Your task to perform on an android device: change alarm snooze length Image 0: 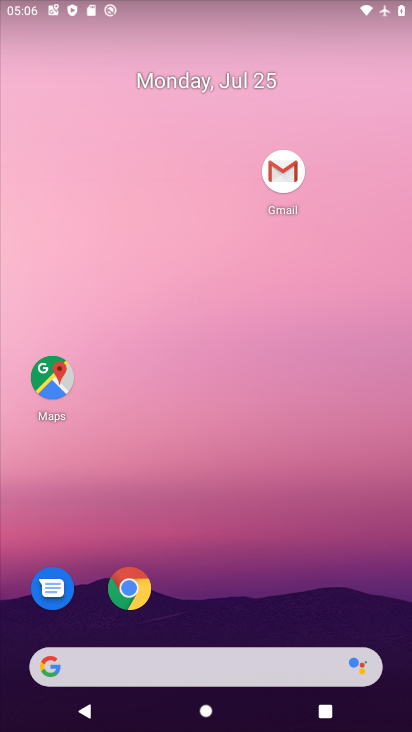
Step 0: drag from (314, 521) to (160, 16)
Your task to perform on an android device: change alarm snooze length Image 1: 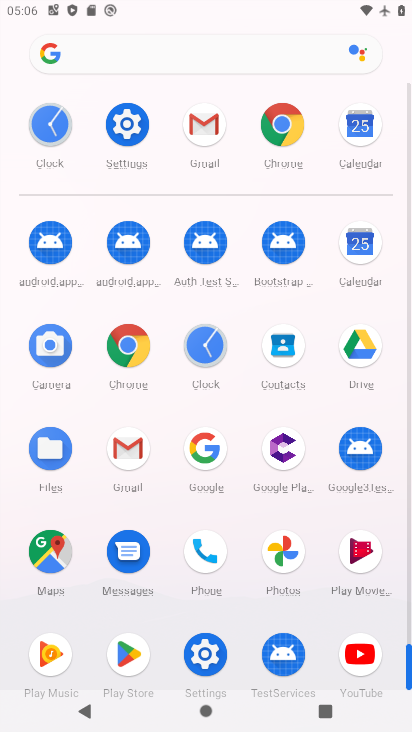
Step 1: click (209, 349)
Your task to perform on an android device: change alarm snooze length Image 2: 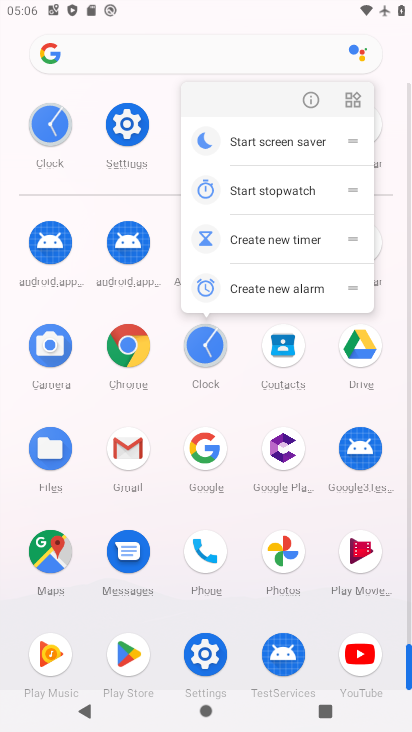
Step 2: click (204, 344)
Your task to perform on an android device: change alarm snooze length Image 3: 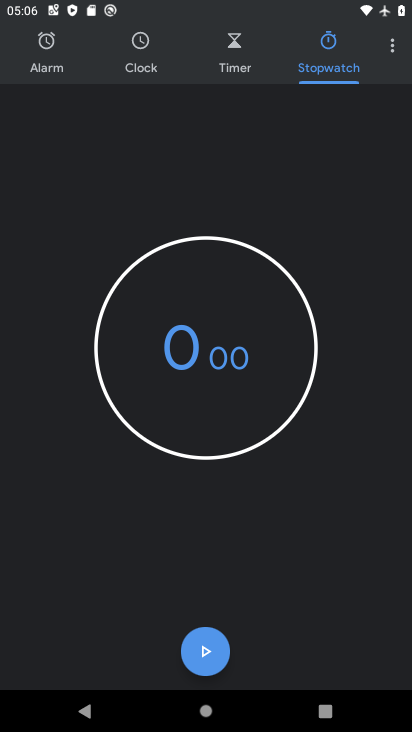
Step 3: click (386, 46)
Your task to perform on an android device: change alarm snooze length Image 4: 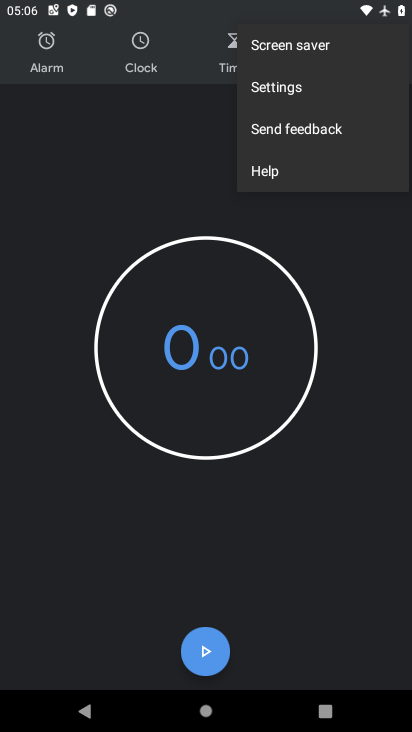
Step 4: click (289, 94)
Your task to perform on an android device: change alarm snooze length Image 5: 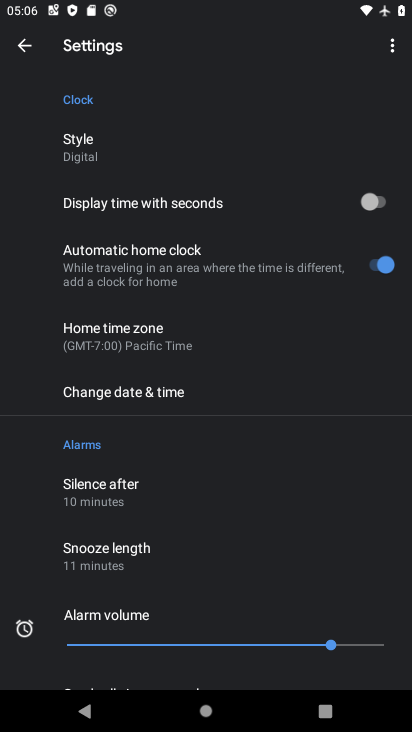
Step 5: click (138, 563)
Your task to perform on an android device: change alarm snooze length Image 6: 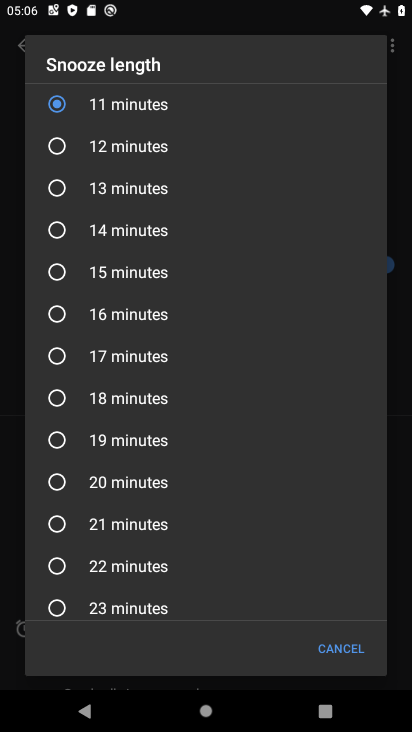
Step 6: click (98, 157)
Your task to perform on an android device: change alarm snooze length Image 7: 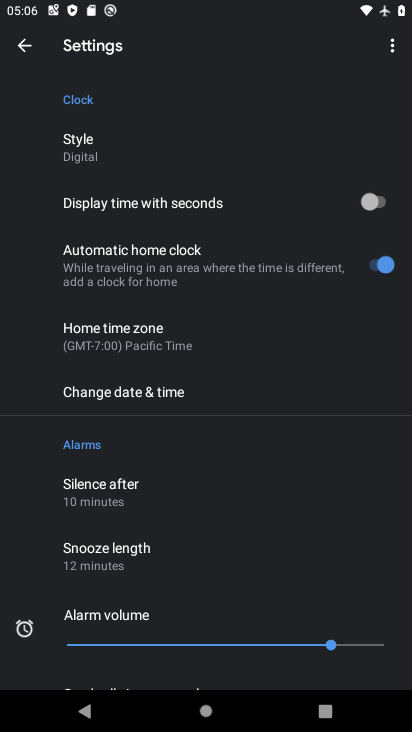
Step 7: task complete